Your task to perform on an android device: toggle translation in the chrome app Image 0: 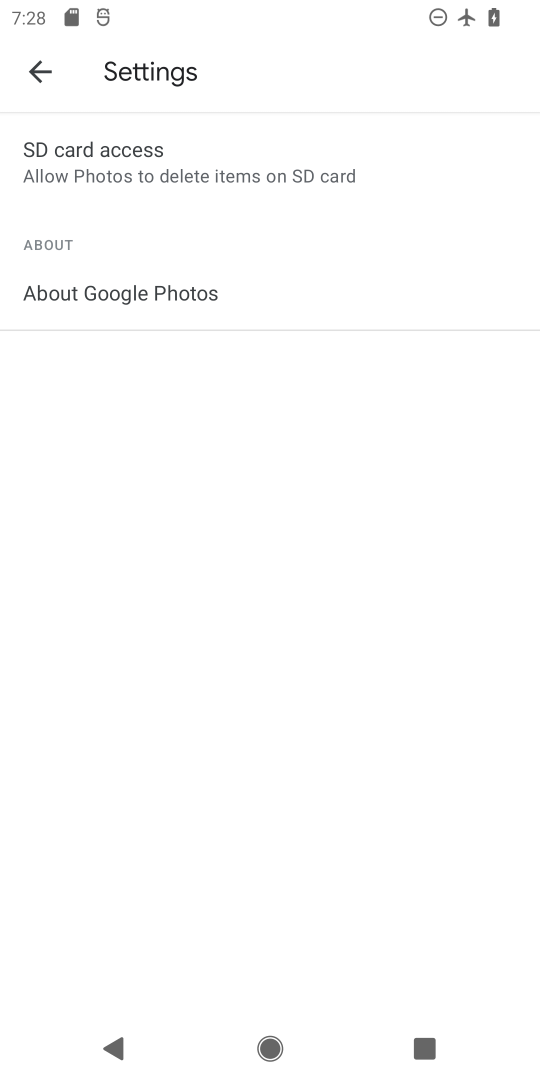
Step 0: press back button
Your task to perform on an android device: toggle translation in the chrome app Image 1: 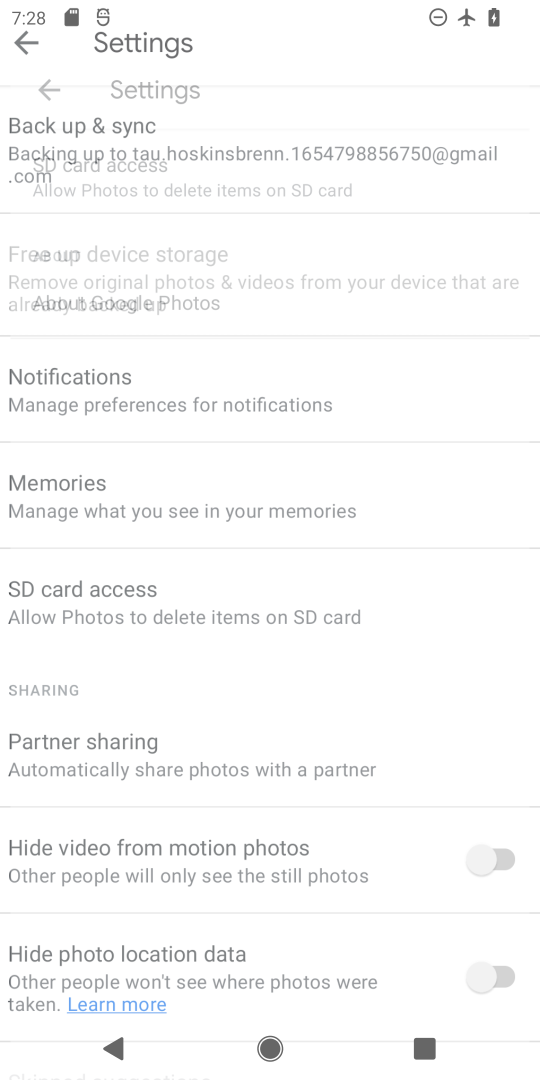
Step 1: press home button
Your task to perform on an android device: toggle translation in the chrome app Image 2: 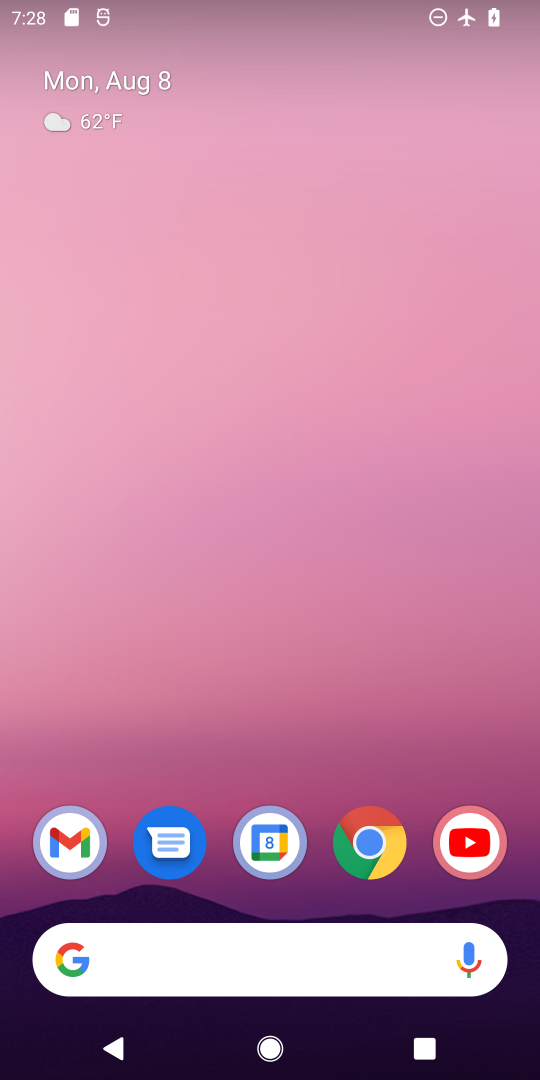
Step 2: click (339, 841)
Your task to perform on an android device: toggle translation in the chrome app Image 3: 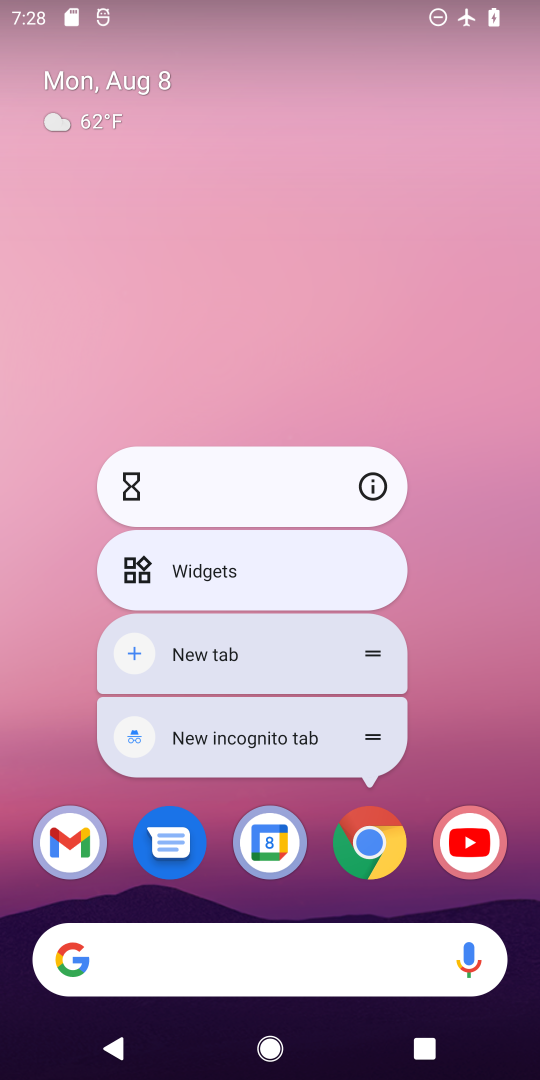
Step 3: click (352, 846)
Your task to perform on an android device: toggle translation in the chrome app Image 4: 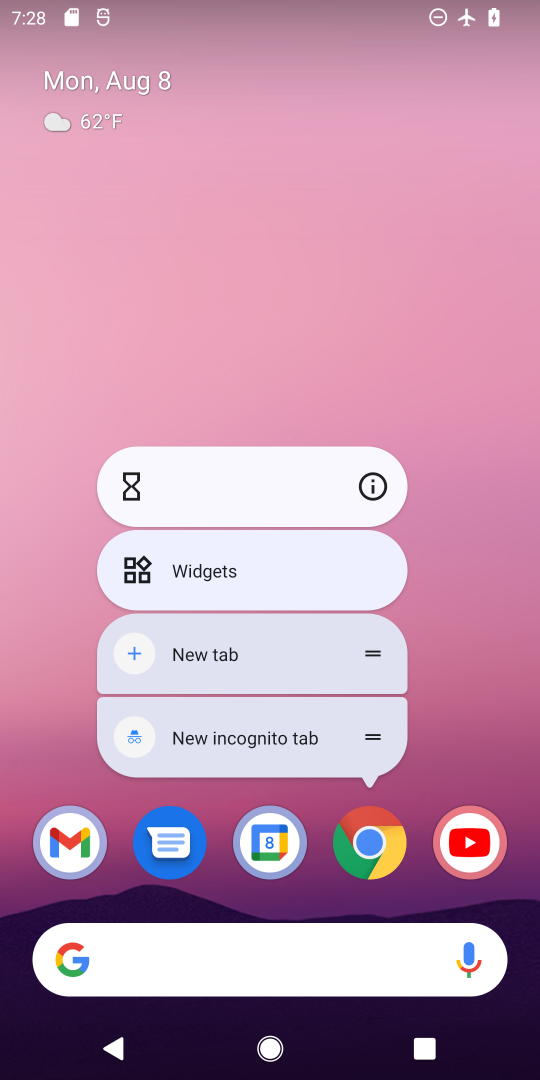
Step 4: click (359, 840)
Your task to perform on an android device: toggle translation in the chrome app Image 5: 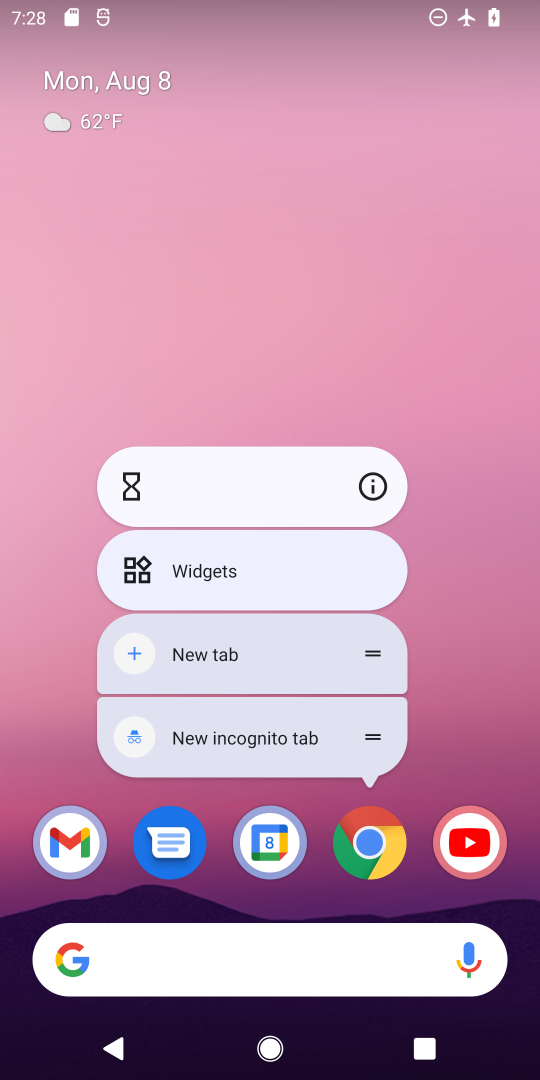
Step 5: click (376, 828)
Your task to perform on an android device: toggle translation in the chrome app Image 6: 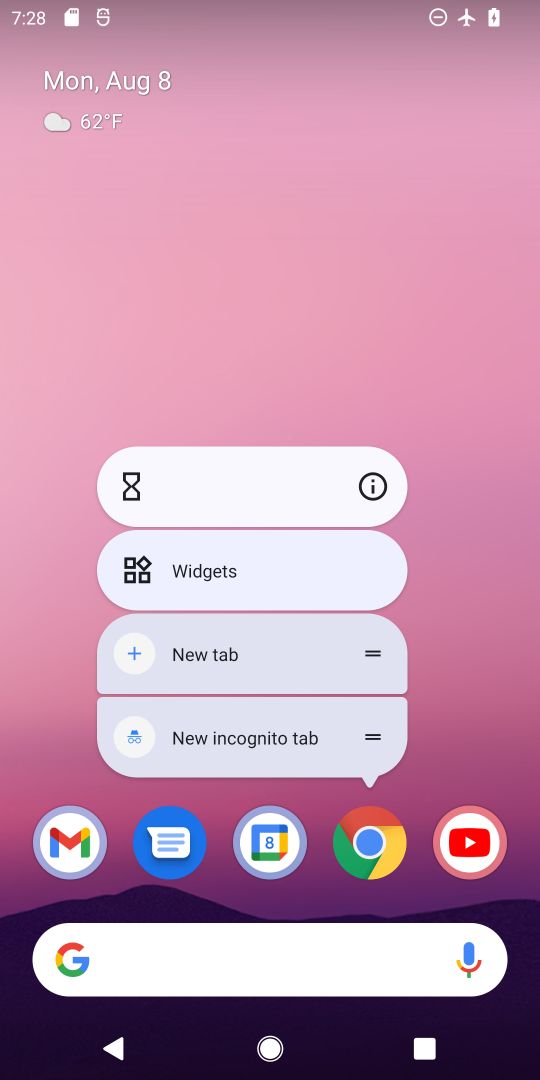
Step 6: click (371, 826)
Your task to perform on an android device: toggle translation in the chrome app Image 7: 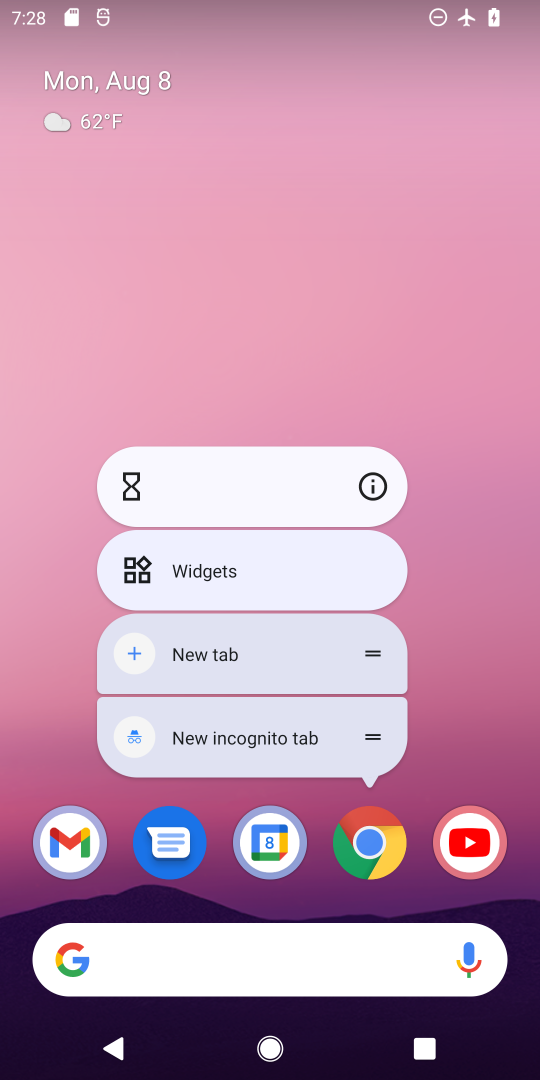
Step 7: click (380, 858)
Your task to perform on an android device: toggle translation in the chrome app Image 8: 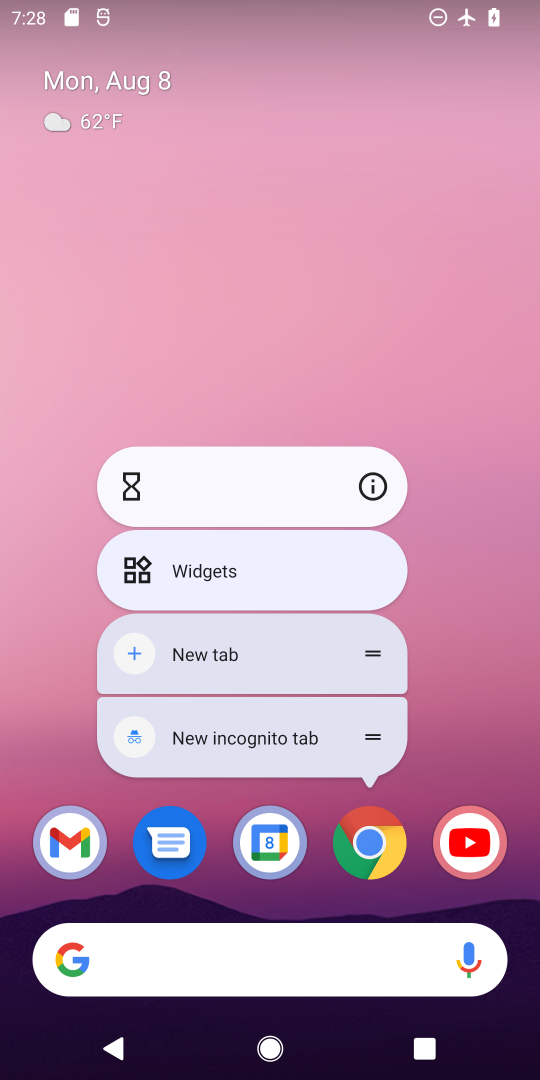
Step 8: click (369, 855)
Your task to perform on an android device: toggle translation in the chrome app Image 9: 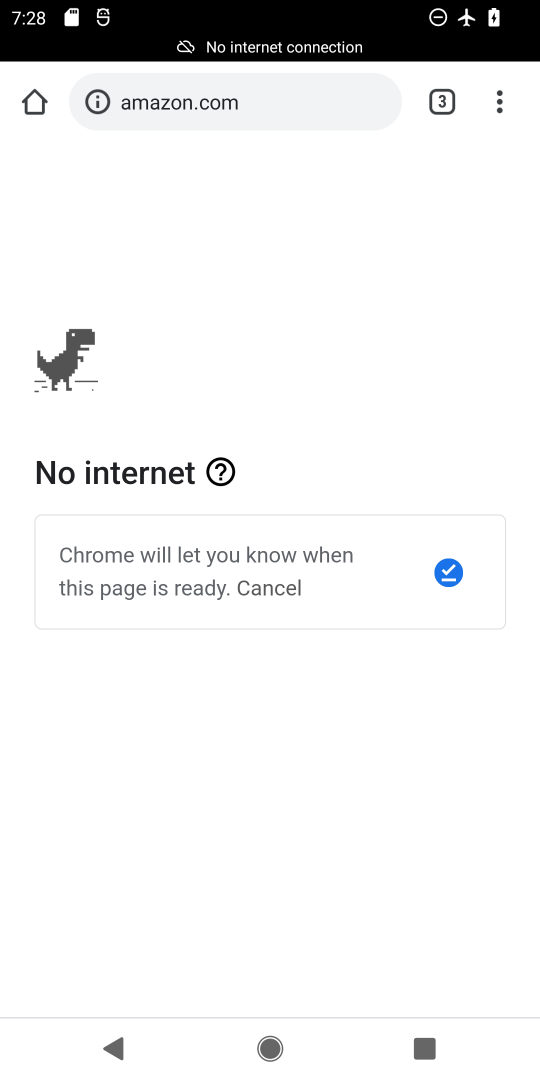
Step 9: drag from (496, 89) to (270, 891)
Your task to perform on an android device: toggle translation in the chrome app Image 10: 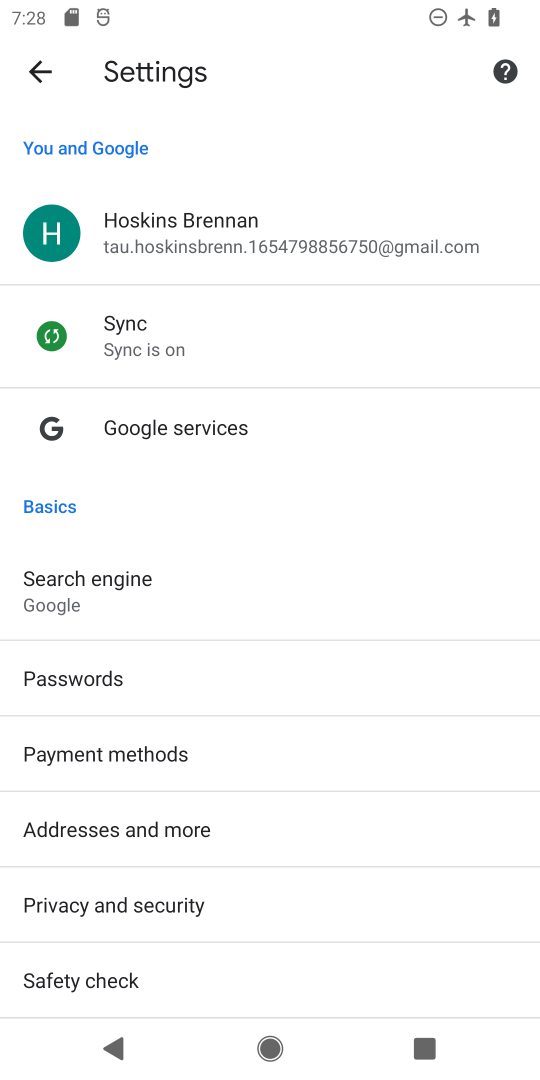
Step 10: drag from (269, 858) to (287, 314)
Your task to perform on an android device: toggle translation in the chrome app Image 11: 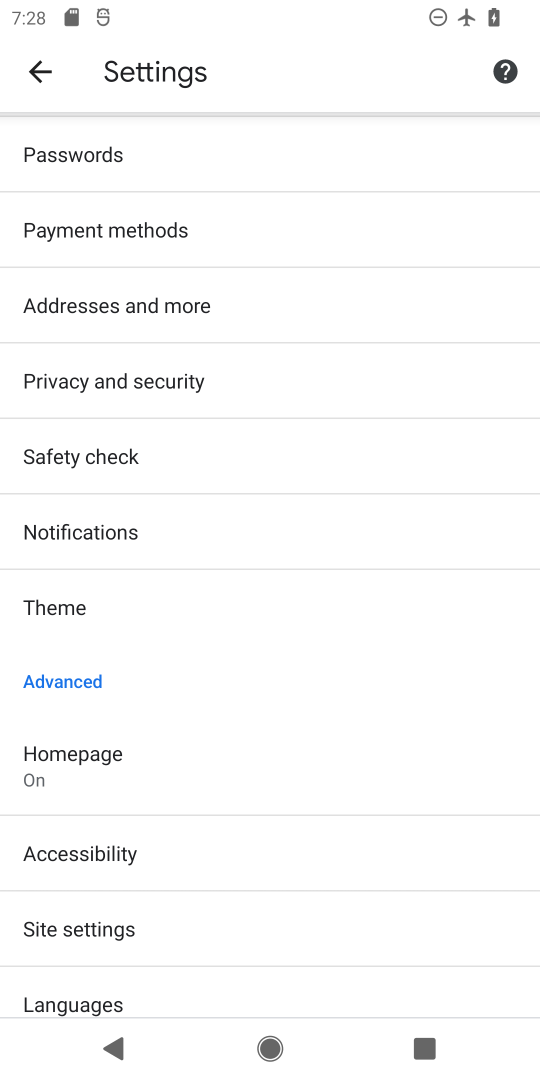
Step 11: click (70, 994)
Your task to perform on an android device: toggle translation in the chrome app Image 12: 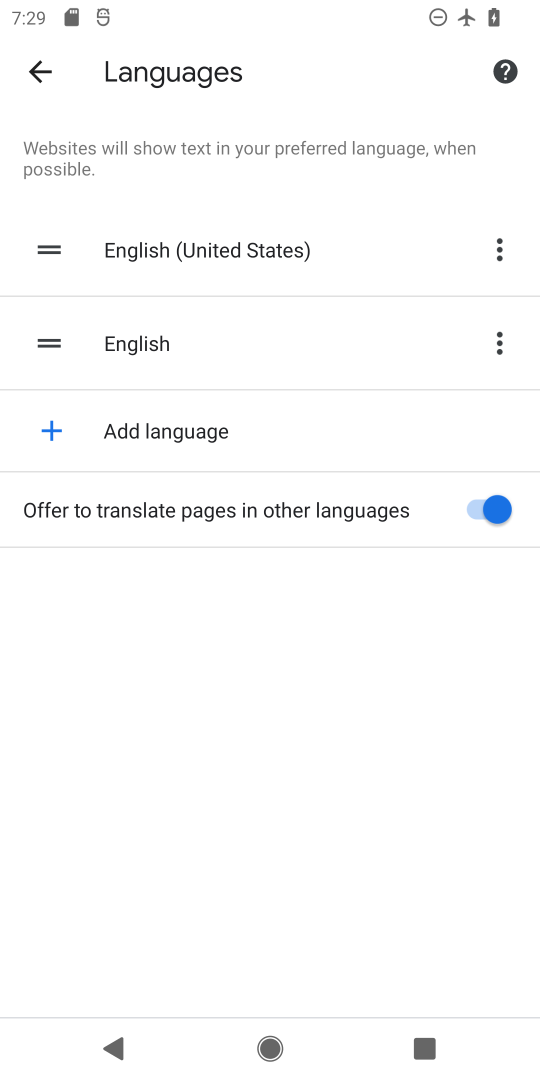
Step 12: click (505, 515)
Your task to perform on an android device: toggle translation in the chrome app Image 13: 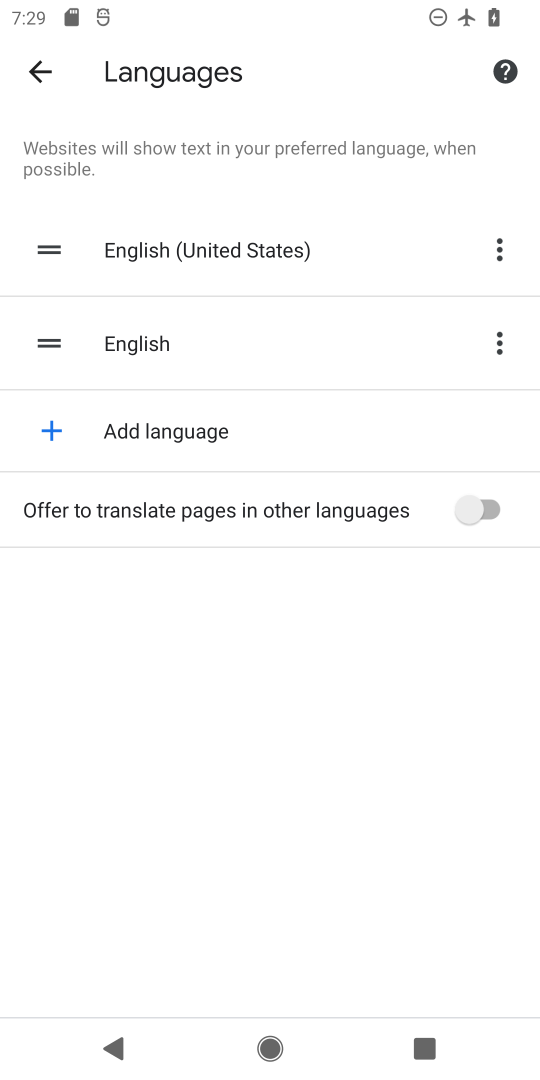
Step 13: task complete